Your task to perform on an android device: Open wifi settings Image 0: 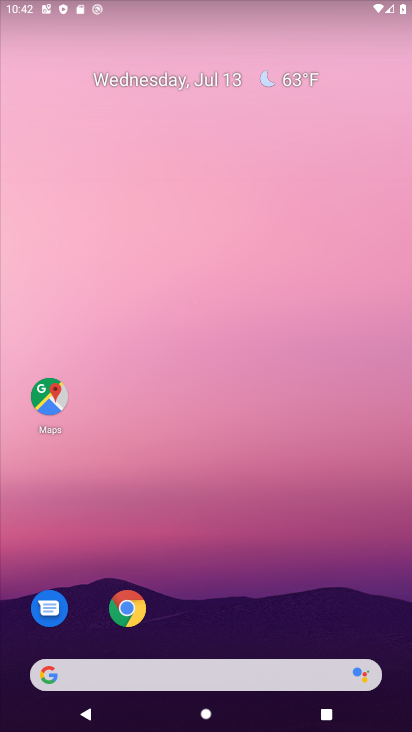
Step 0: drag from (259, 608) to (259, 49)
Your task to perform on an android device: Open wifi settings Image 1: 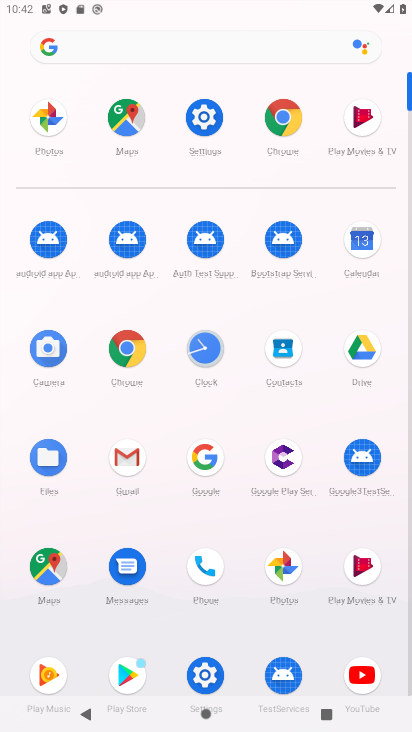
Step 1: drag from (63, 0) to (55, 541)
Your task to perform on an android device: Open wifi settings Image 2: 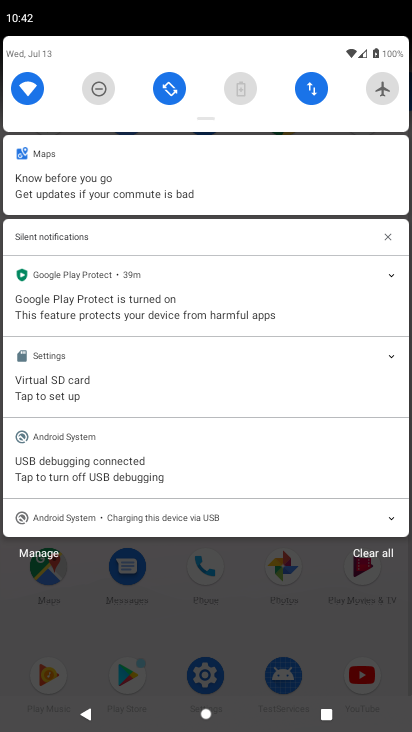
Step 2: click (29, 77)
Your task to perform on an android device: Open wifi settings Image 3: 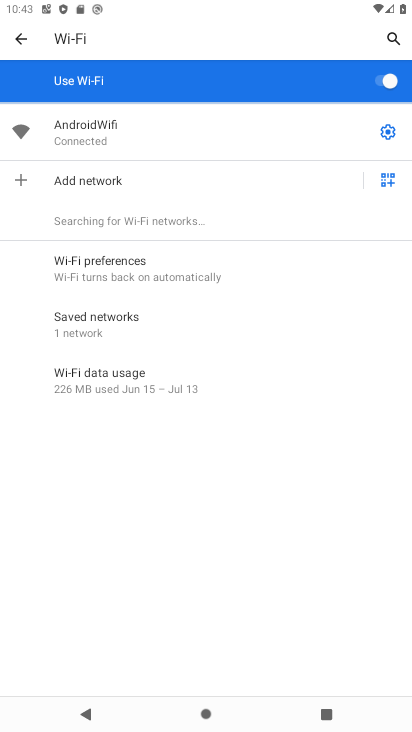
Step 3: task complete